Your task to perform on an android device: Toggle the flashlight Image 0: 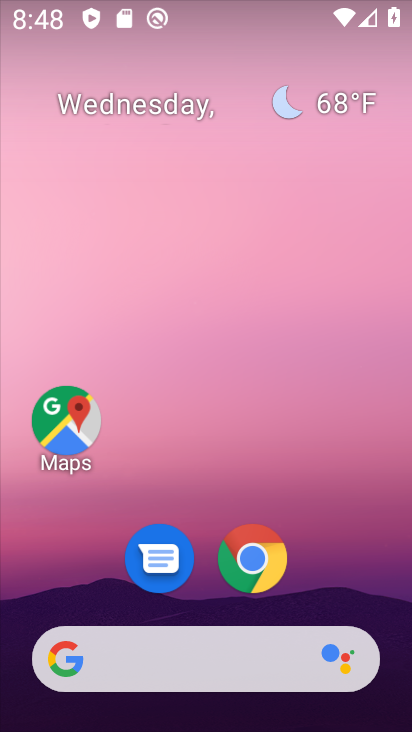
Step 0: drag from (292, 5) to (250, 486)
Your task to perform on an android device: Toggle the flashlight Image 1: 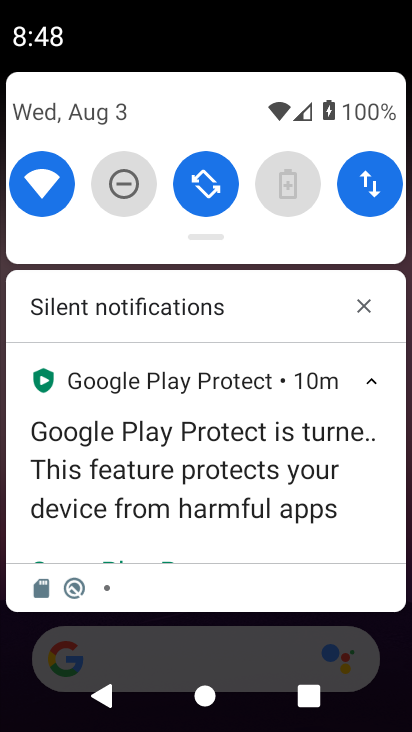
Step 1: drag from (253, 216) to (262, 420)
Your task to perform on an android device: Toggle the flashlight Image 2: 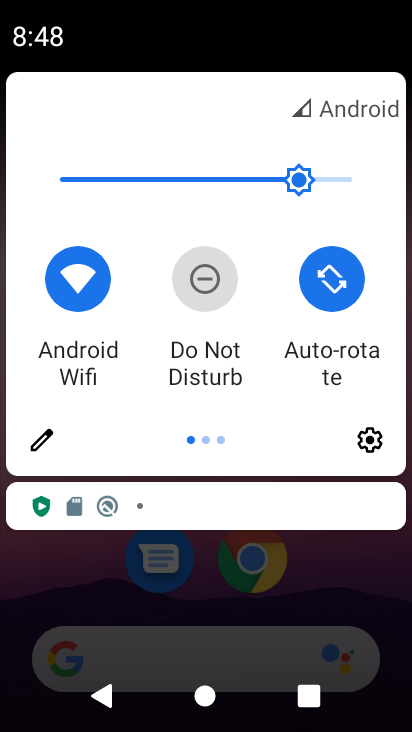
Step 2: click (52, 435)
Your task to perform on an android device: Toggle the flashlight Image 3: 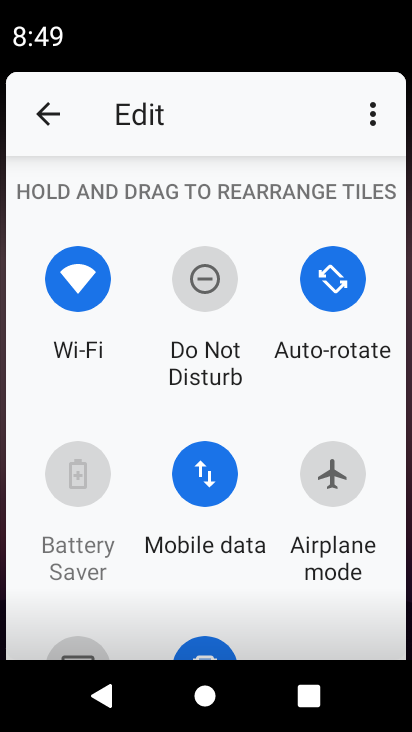
Step 3: task complete